Your task to perform on an android device: delete a single message in the gmail app Image 0: 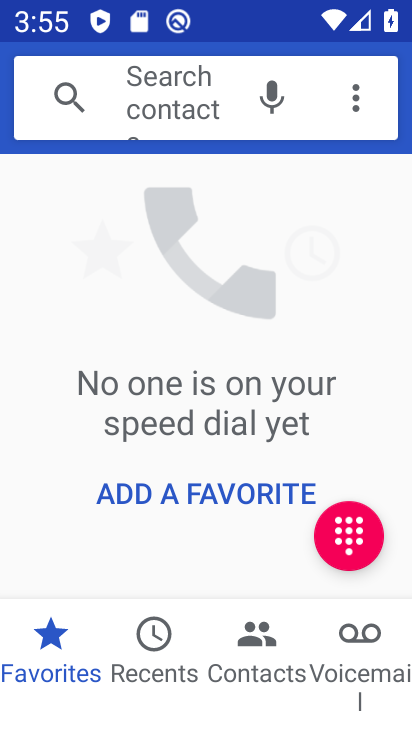
Step 0: press home button
Your task to perform on an android device: delete a single message in the gmail app Image 1: 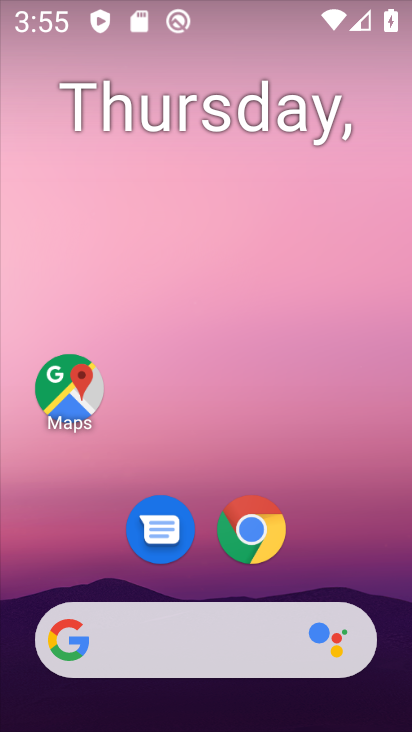
Step 1: drag from (189, 597) to (189, 231)
Your task to perform on an android device: delete a single message in the gmail app Image 2: 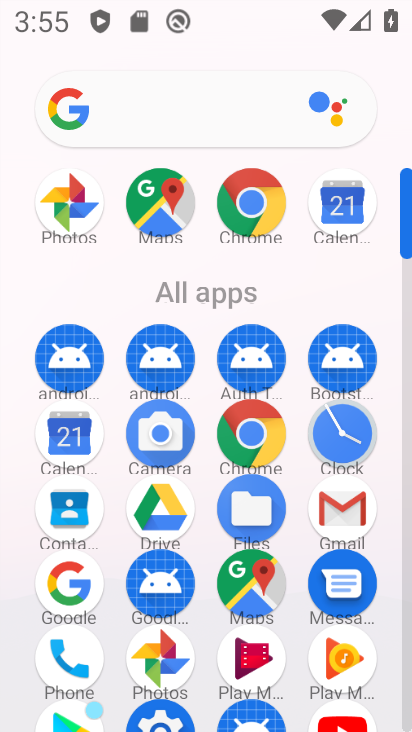
Step 2: click (325, 518)
Your task to perform on an android device: delete a single message in the gmail app Image 3: 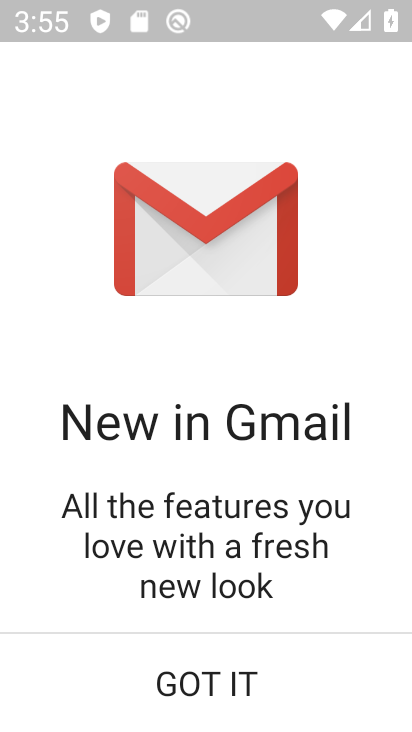
Step 3: click (174, 679)
Your task to perform on an android device: delete a single message in the gmail app Image 4: 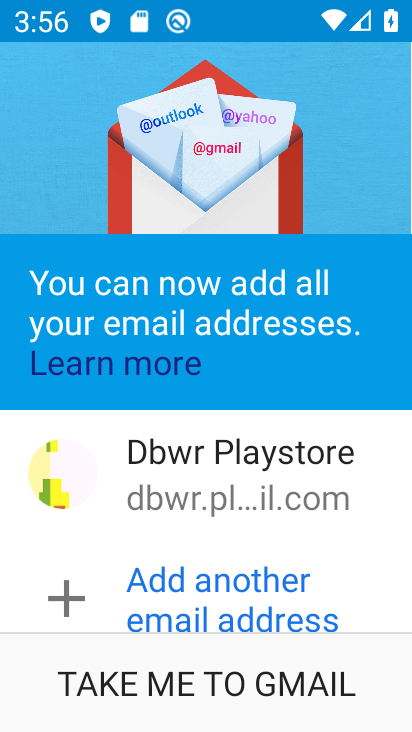
Step 4: click (183, 690)
Your task to perform on an android device: delete a single message in the gmail app Image 5: 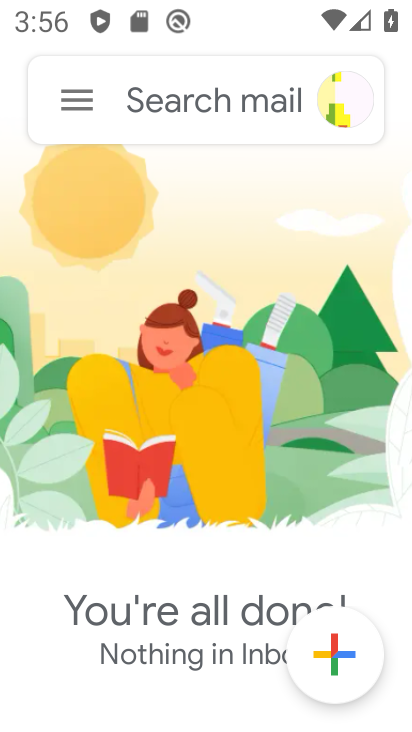
Step 5: click (79, 105)
Your task to perform on an android device: delete a single message in the gmail app Image 6: 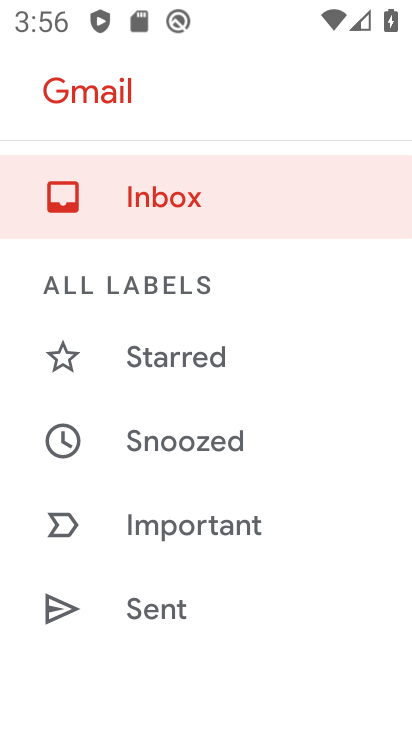
Step 6: click (147, 181)
Your task to perform on an android device: delete a single message in the gmail app Image 7: 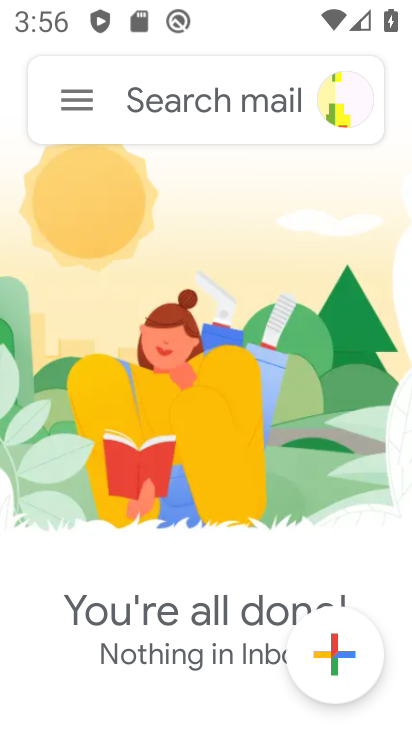
Step 7: task complete